Your task to perform on an android device: toggle translation in the chrome app Image 0: 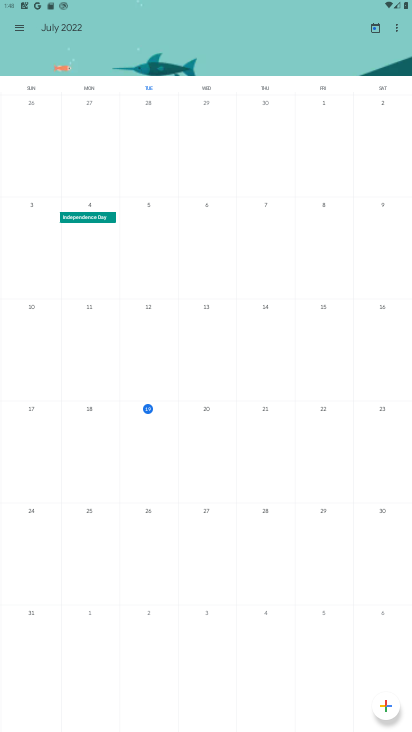
Step 0: press home button
Your task to perform on an android device: toggle translation in the chrome app Image 1: 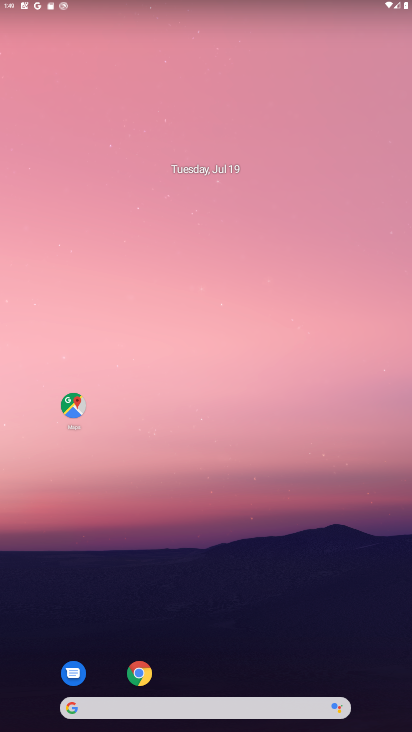
Step 1: click (134, 672)
Your task to perform on an android device: toggle translation in the chrome app Image 2: 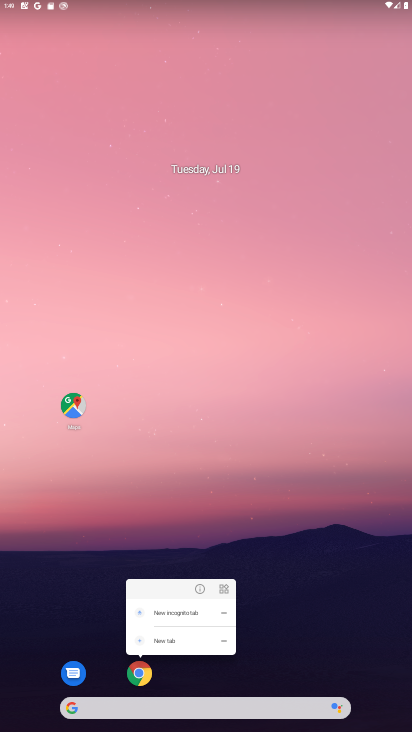
Step 2: click (134, 672)
Your task to perform on an android device: toggle translation in the chrome app Image 3: 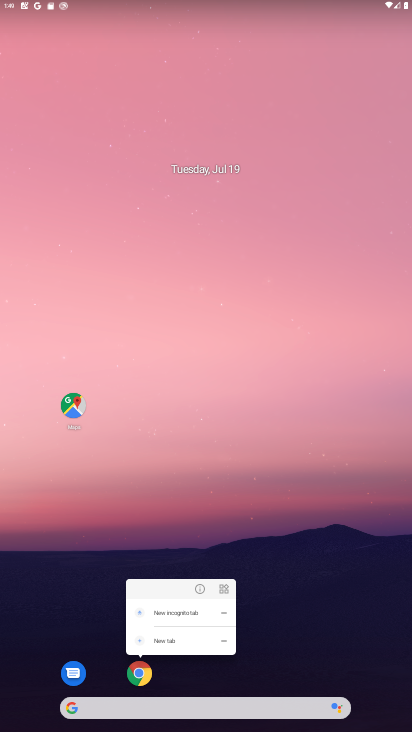
Step 3: click (135, 674)
Your task to perform on an android device: toggle translation in the chrome app Image 4: 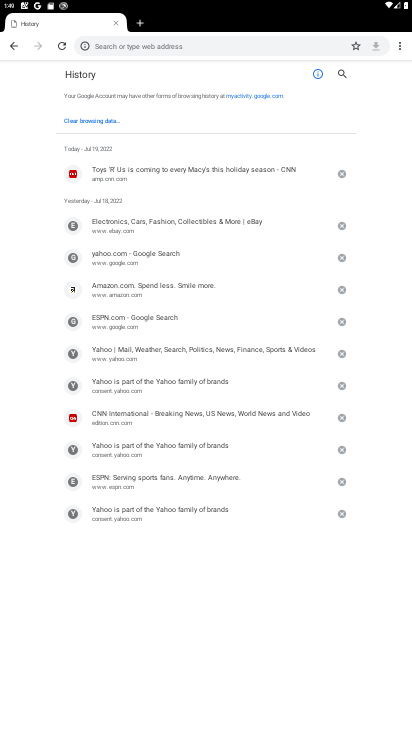
Step 4: click (396, 47)
Your task to perform on an android device: toggle translation in the chrome app Image 5: 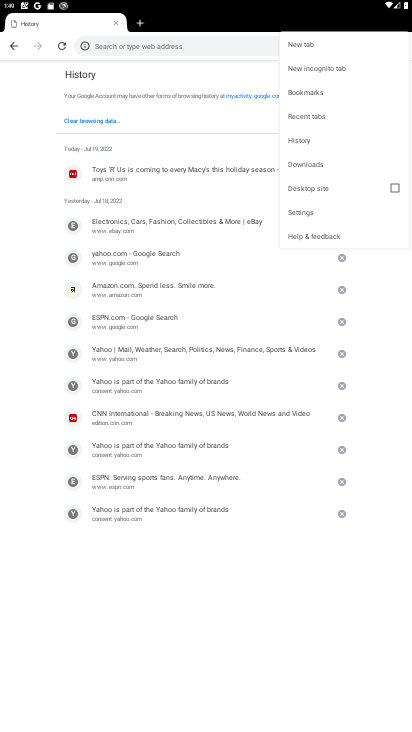
Step 5: click (325, 213)
Your task to perform on an android device: toggle translation in the chrome app Image 6: 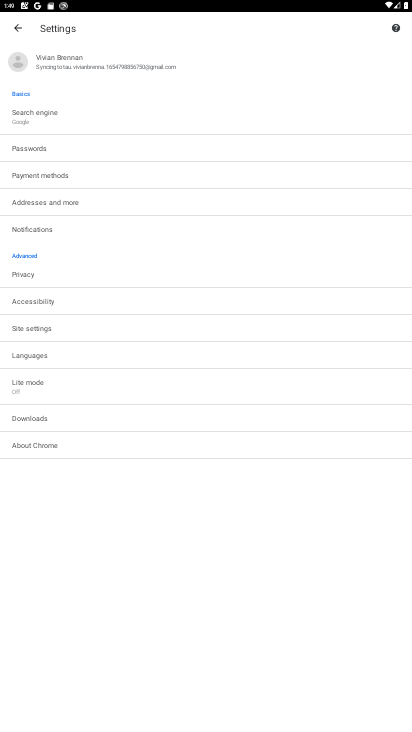
Step 6: click (58, 352)
Your task to perform on an android device: toggle translation in the chrome app Image 7: 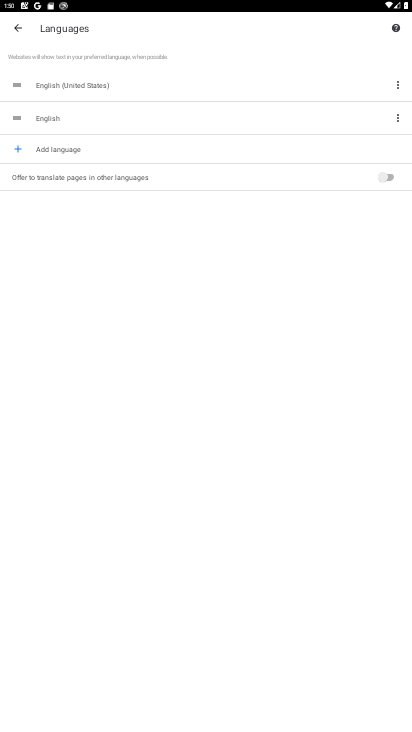
Step 7: click (388, 175)
Your task to perform on an android device: toggle translation in the chrome app Image 8: 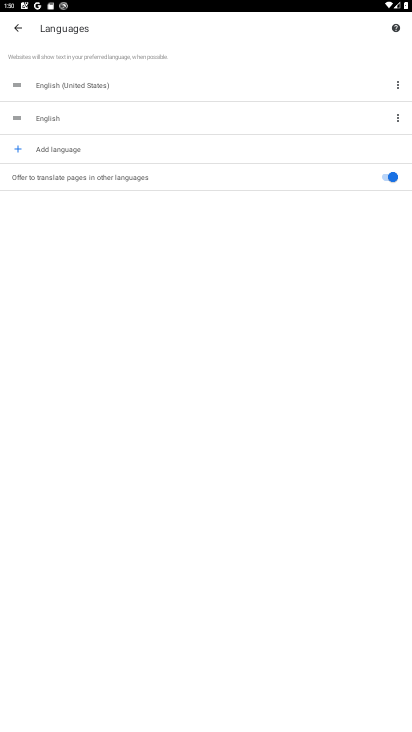
Step 8: task complete